Your task to perform on an android device: Search for "duracell triple a" on walmart, select the first entry, and add it to the cart. Image 0: 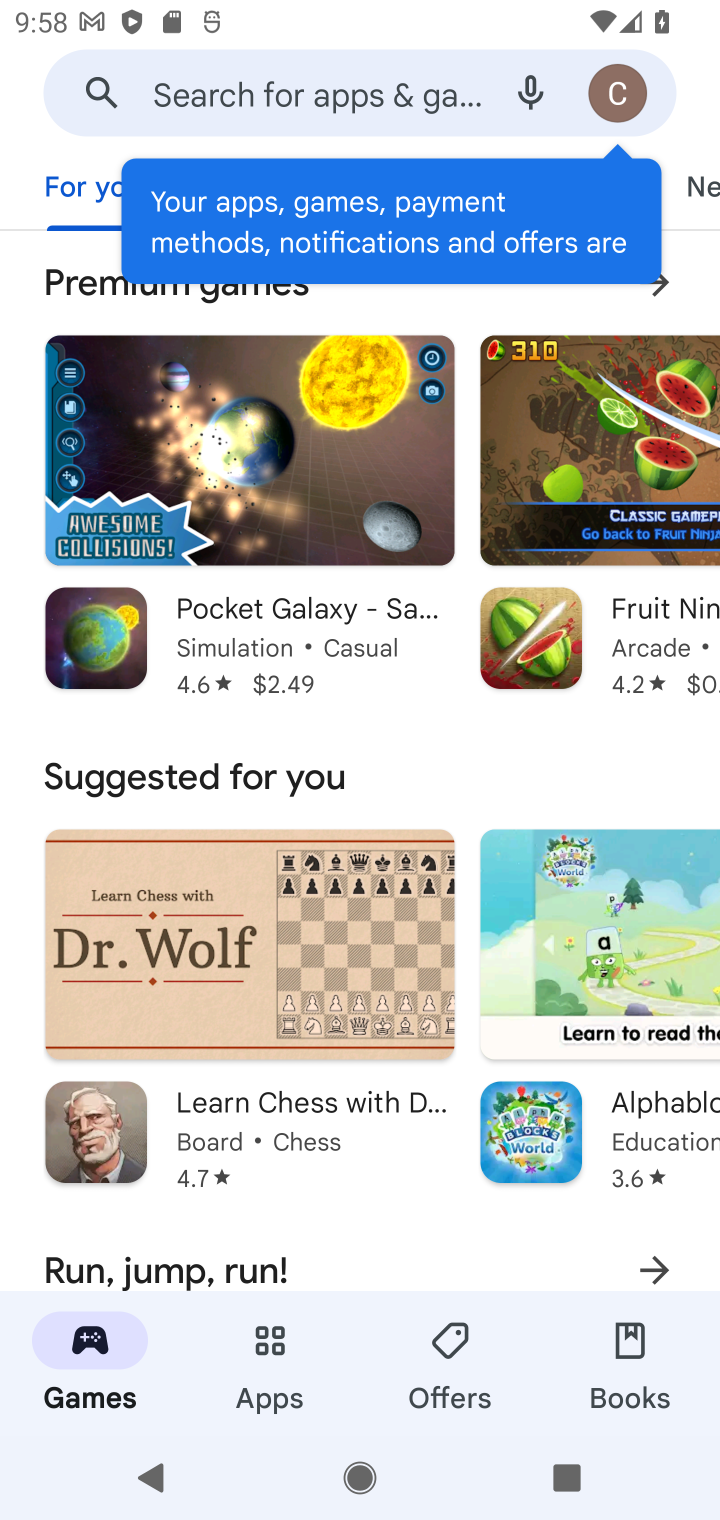
Step 0: press home button
Your task to perform on an android device: Search for "duracell triple a" on walmart, select the first entry, and add it to the cart. Image 1: 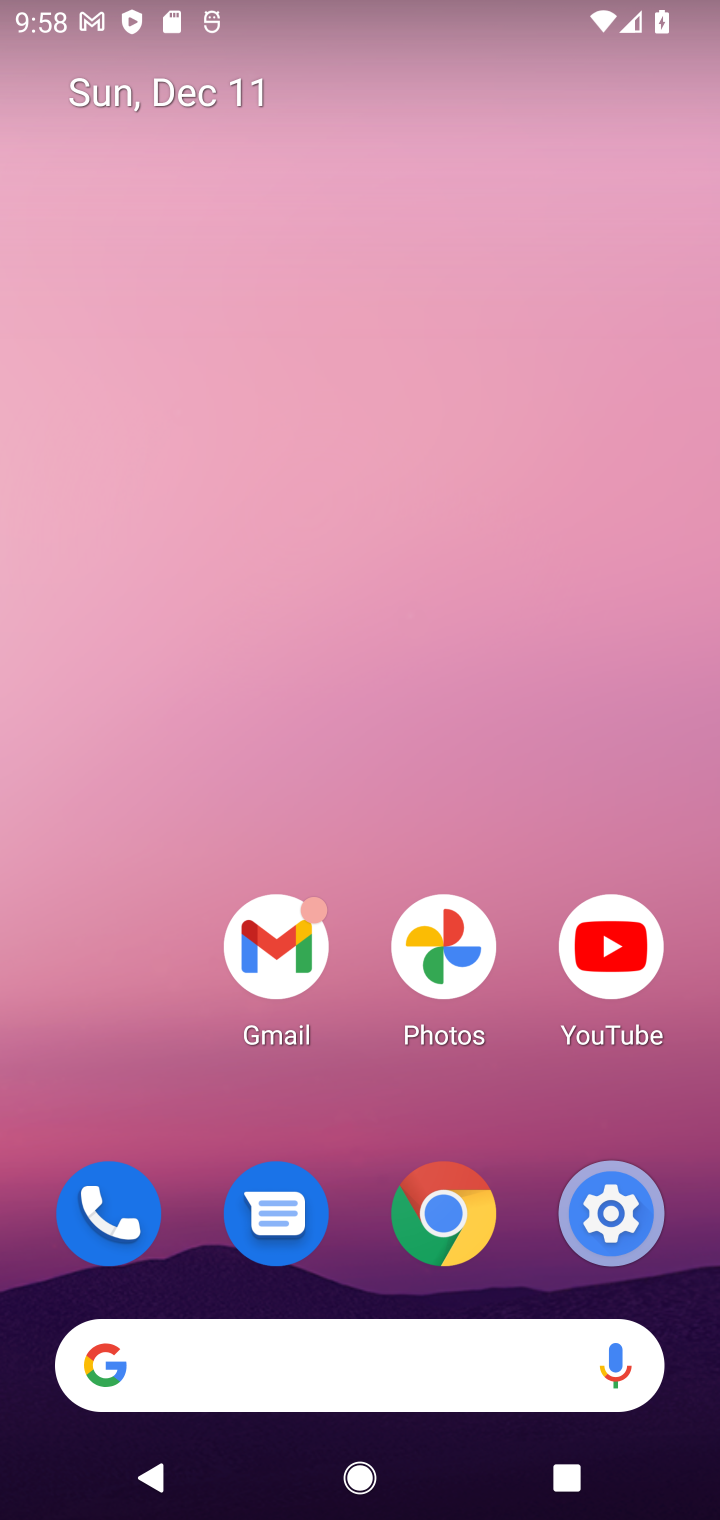
Step 1: click (281, 1388)
Your task to perform on an android device: Search for "duracell triple a" on walmart, select the first entry, and add it to the cart. Image 2: 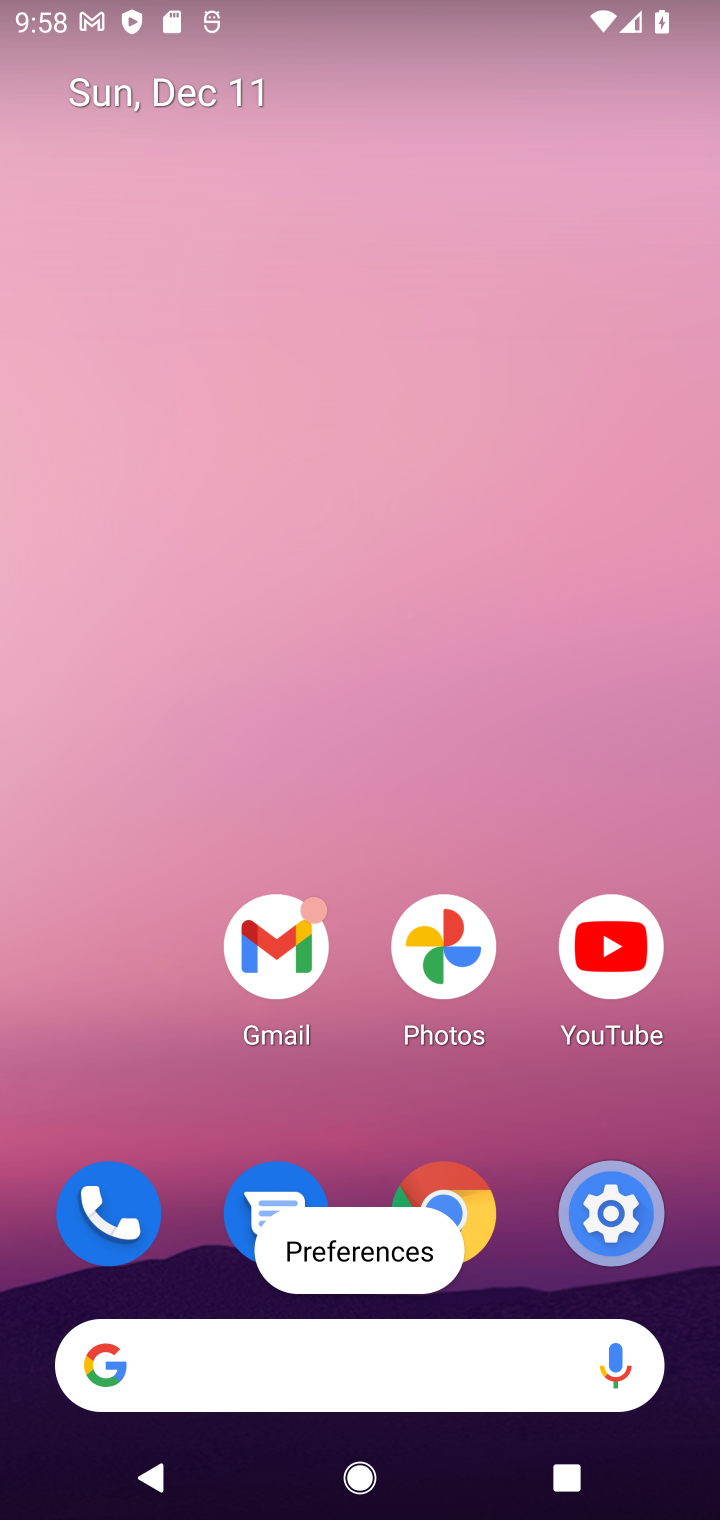
Step 2: type "walmart"
Your task to perform on an android device: Search for "duracell triple a" on walmart, select the first entry, and add it to the cart. Image 3: 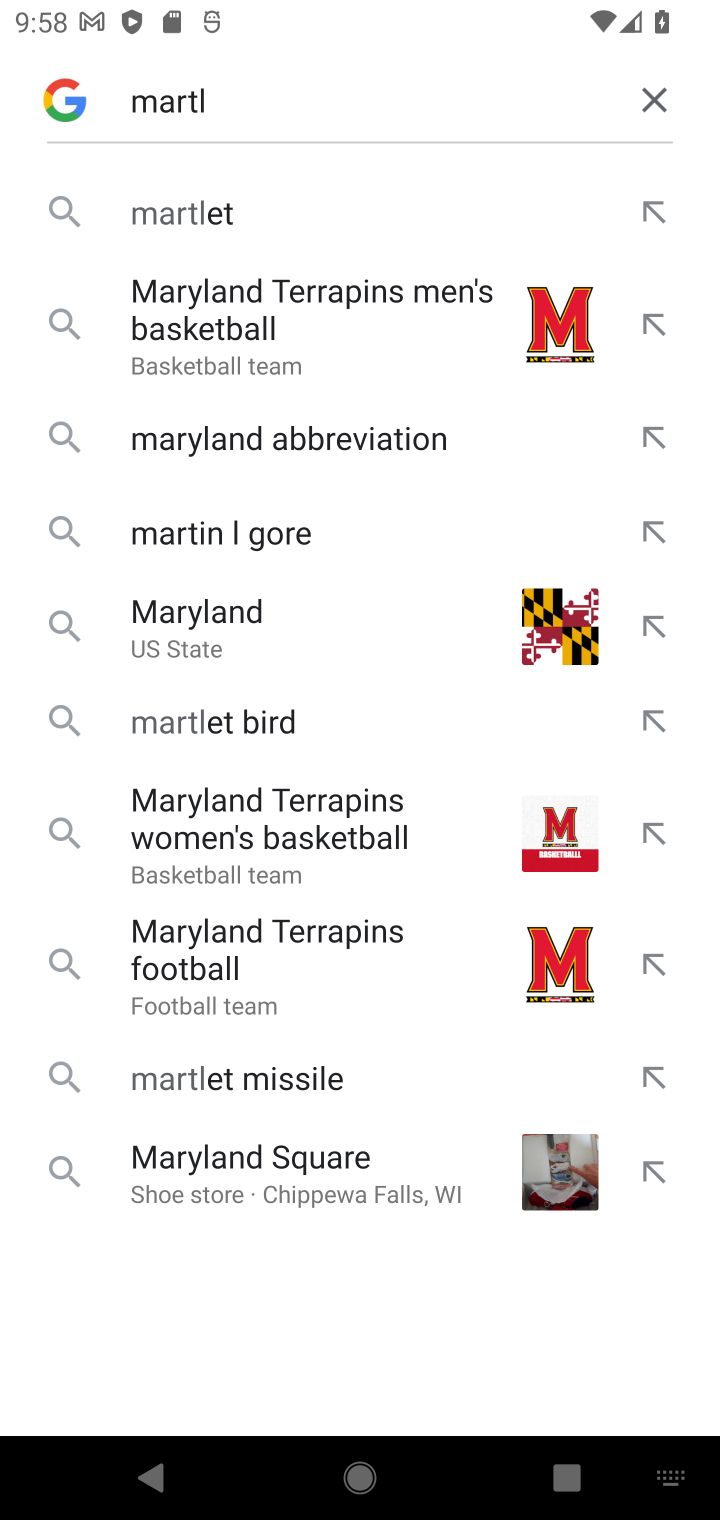
Step 3: click (662, 121)
Your task to perform on an android device: Search for "duracell triple a" on walmart, select the first entry, and add it to the cart. Image 4: 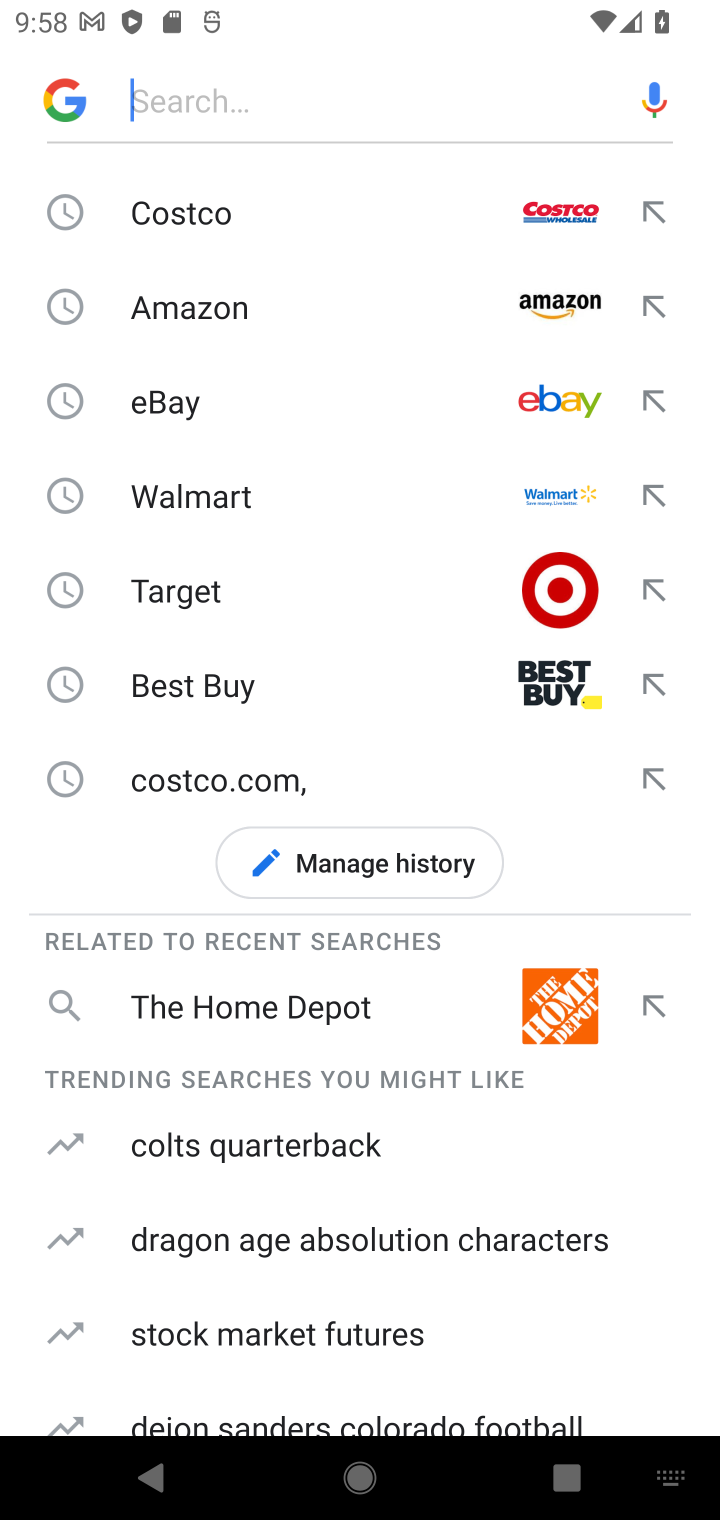
Step 4: click (291, 514)
Your task to perform on an android device: Search for "duracell triple a" on walmart, select the first entry, and add it to the cart. Image 5: 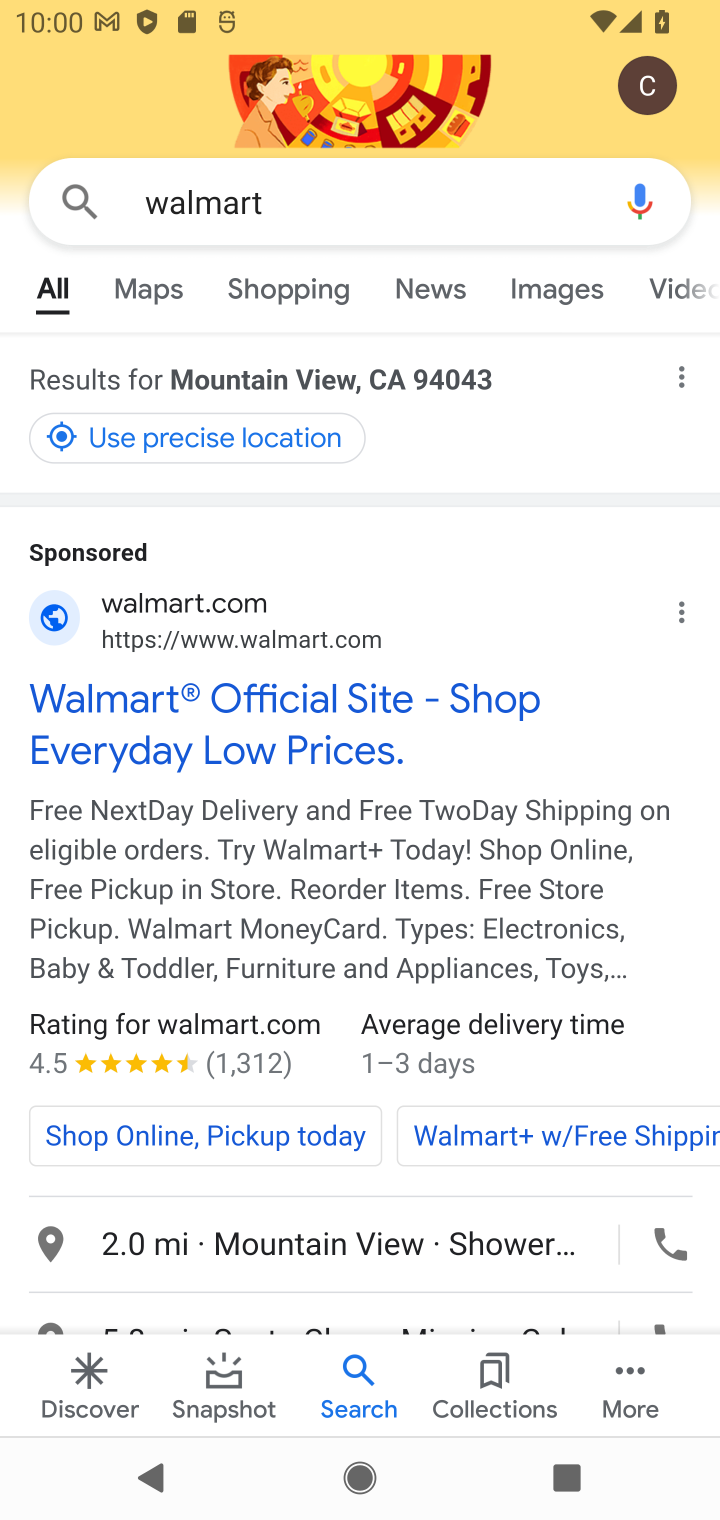
Step 5: click (439, 732)
Your task to perform on an android device: Search for "duracell triple a" on walmart, select the first entry, and add it to the cart. Image 6: 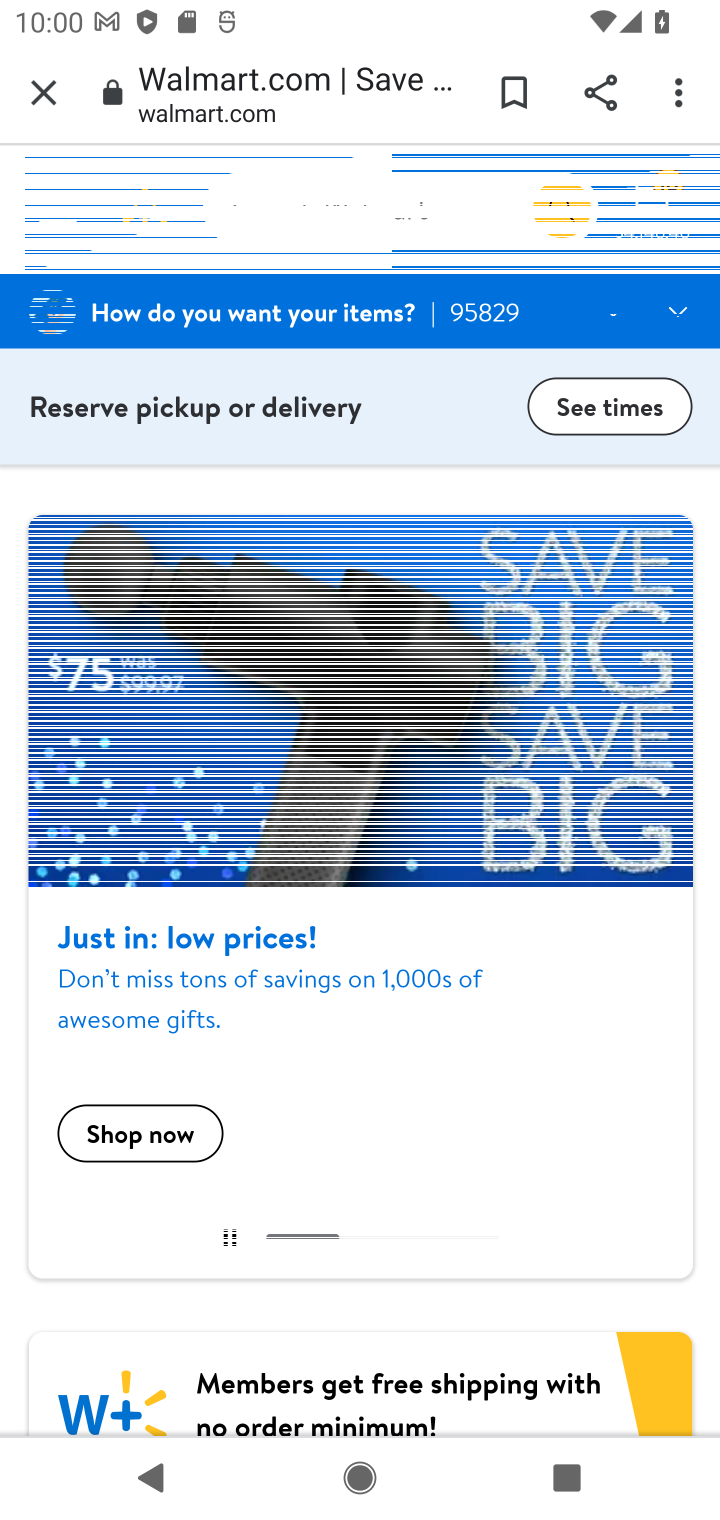
Step 6: drag from (424, 1340) to (393, 529)
Your task to perform on an android device: Search for "duracell triple a" on walmart, select the first entry, and add it to the cart. Image 7: 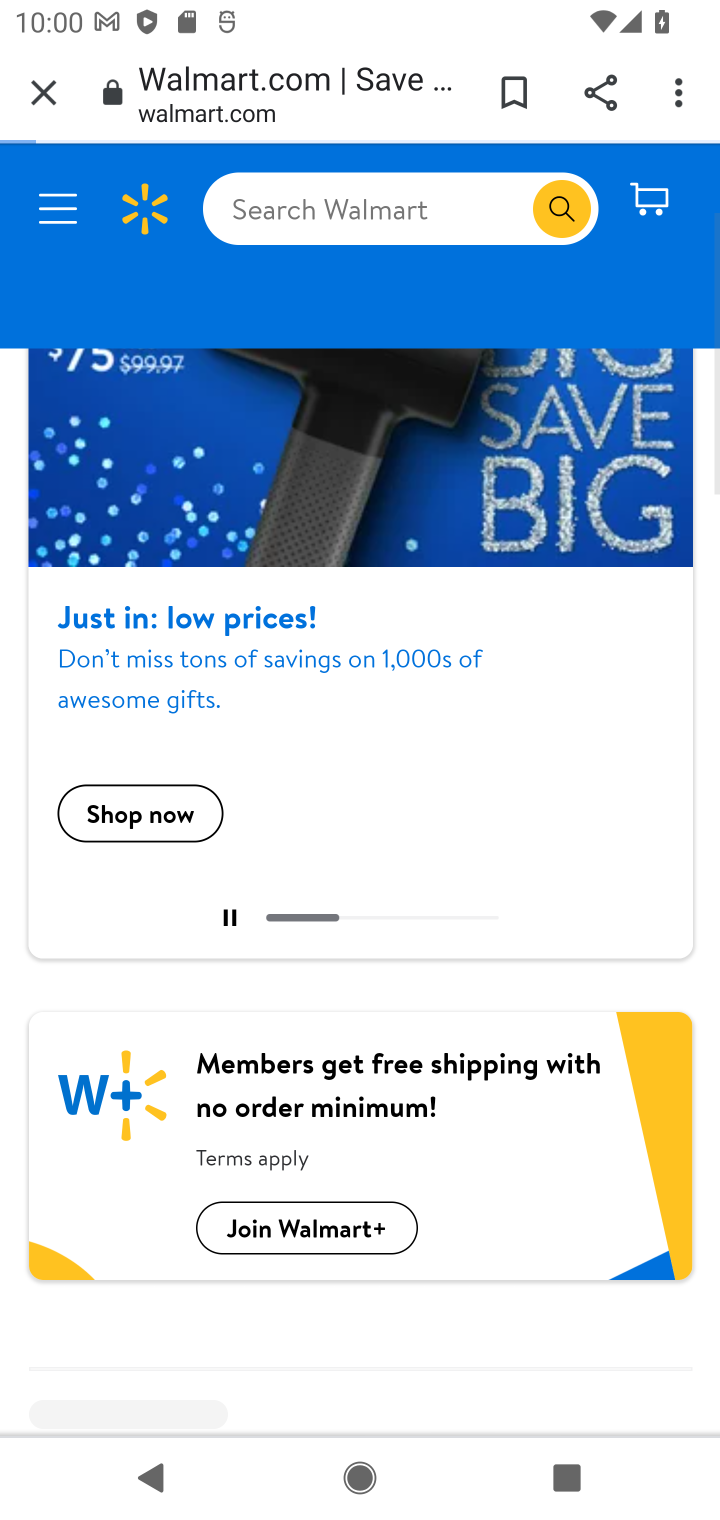
Step 7: click (310, 229)
Your task to perform on an android device: Search for "duracell triple a" on walmart, select the first entry, and add it to the cart. Image 8: 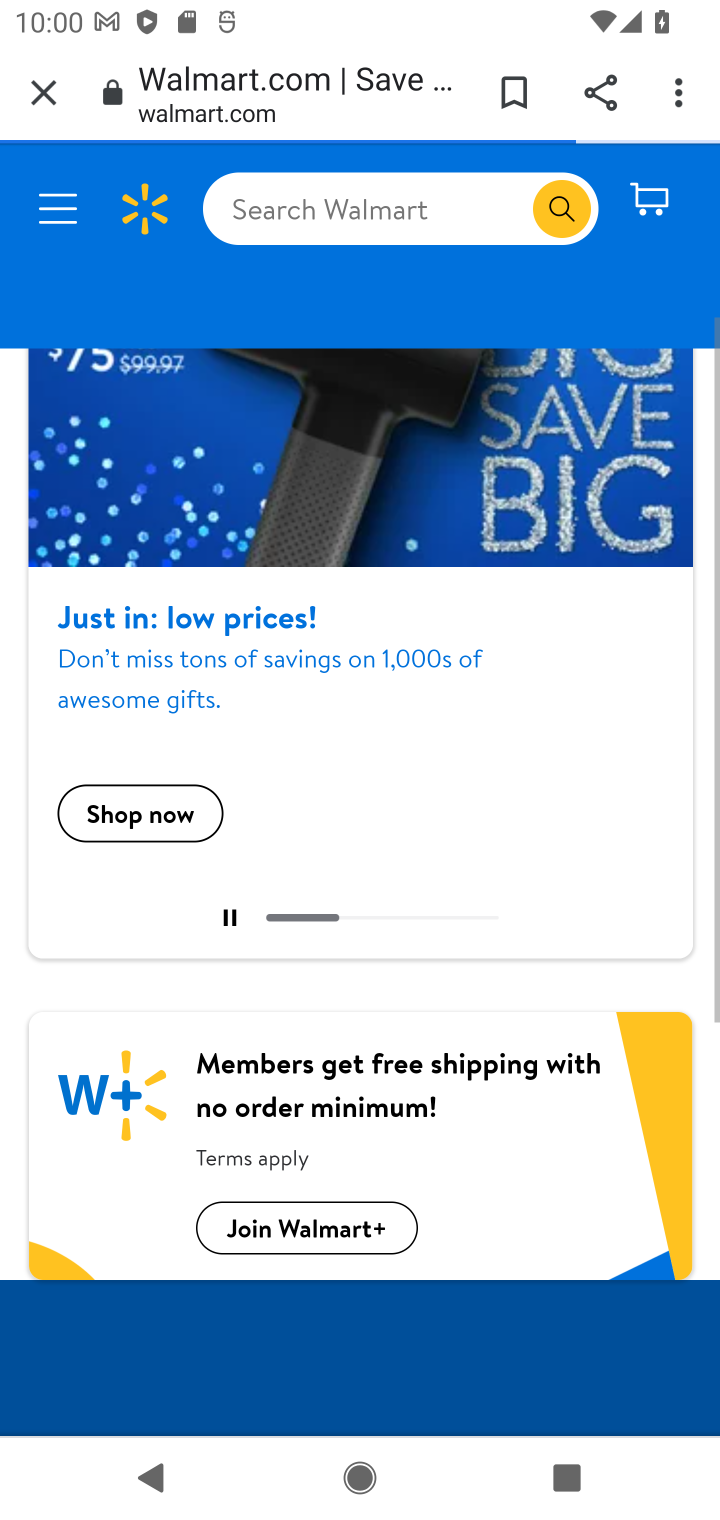
Step 8: click (392, 239)
Your task to perform on an android device: Search for "duracell triple a" on walmart, select the first entry, and add it to the cart. Image 9: 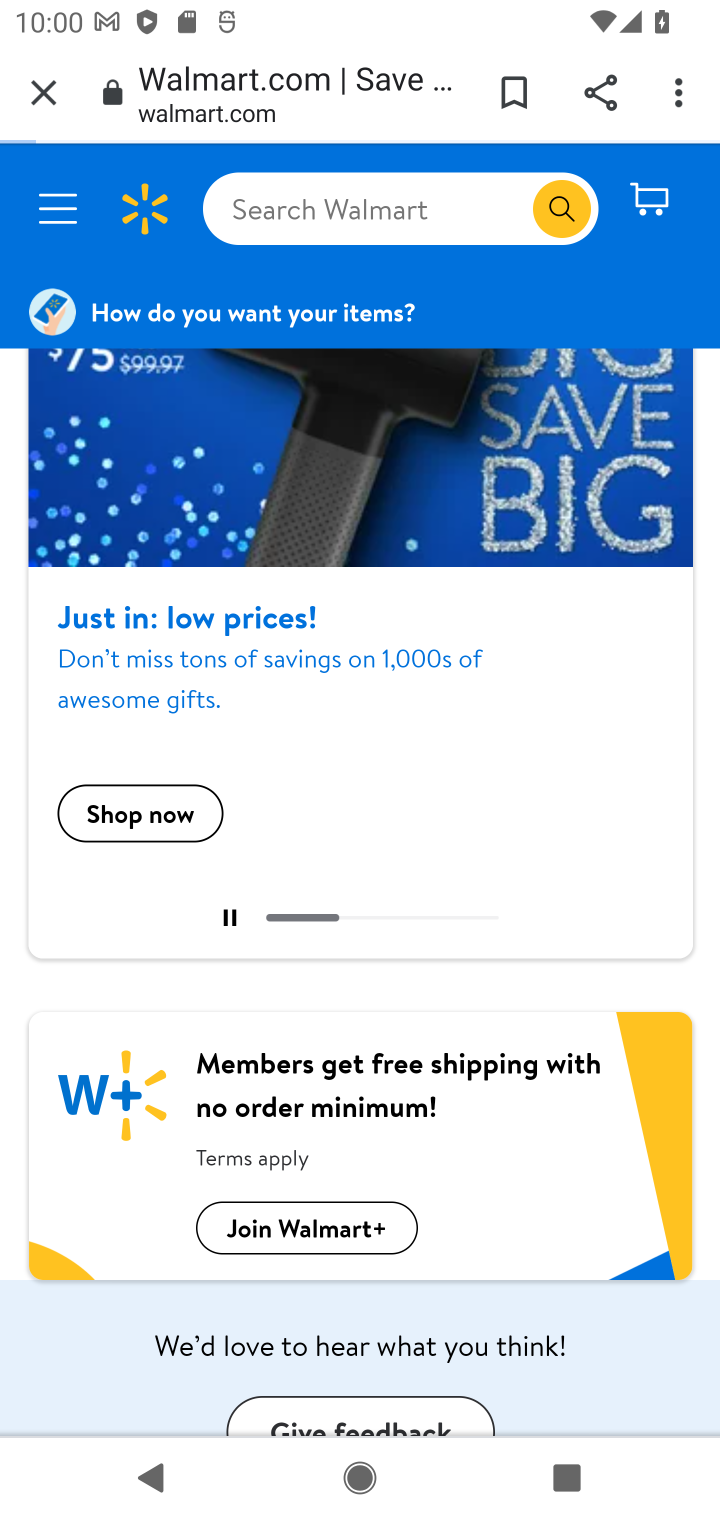
Step 9: type "duracell"
Your task to perform on an android device: Search for "duracell triple a" on walmart, select the first entry, and add it to the cart. Image 10: 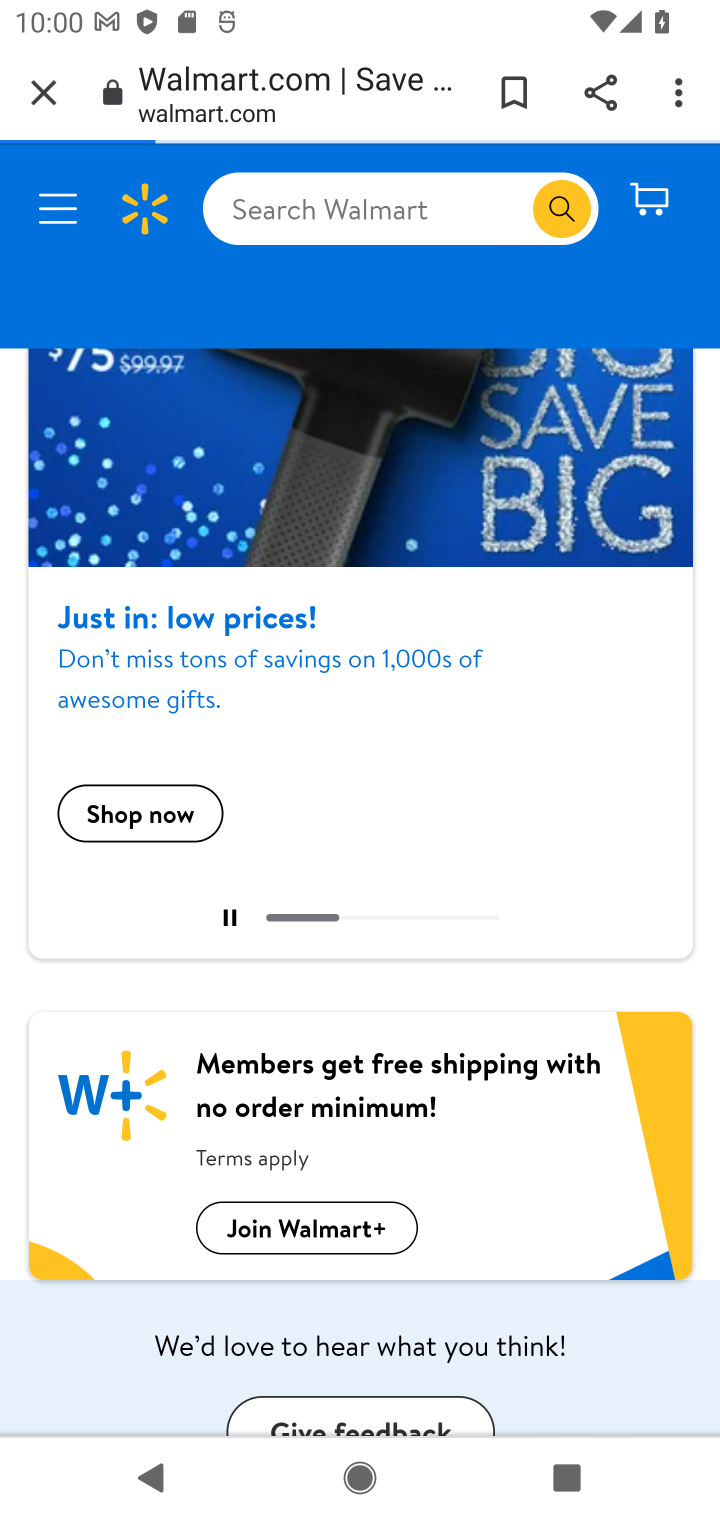
Step 10: click (374, 234)
Your task to perform on an android device: Search for "duracell triple a" on walmart, select the first entry, and add it to the cart. Image 11: 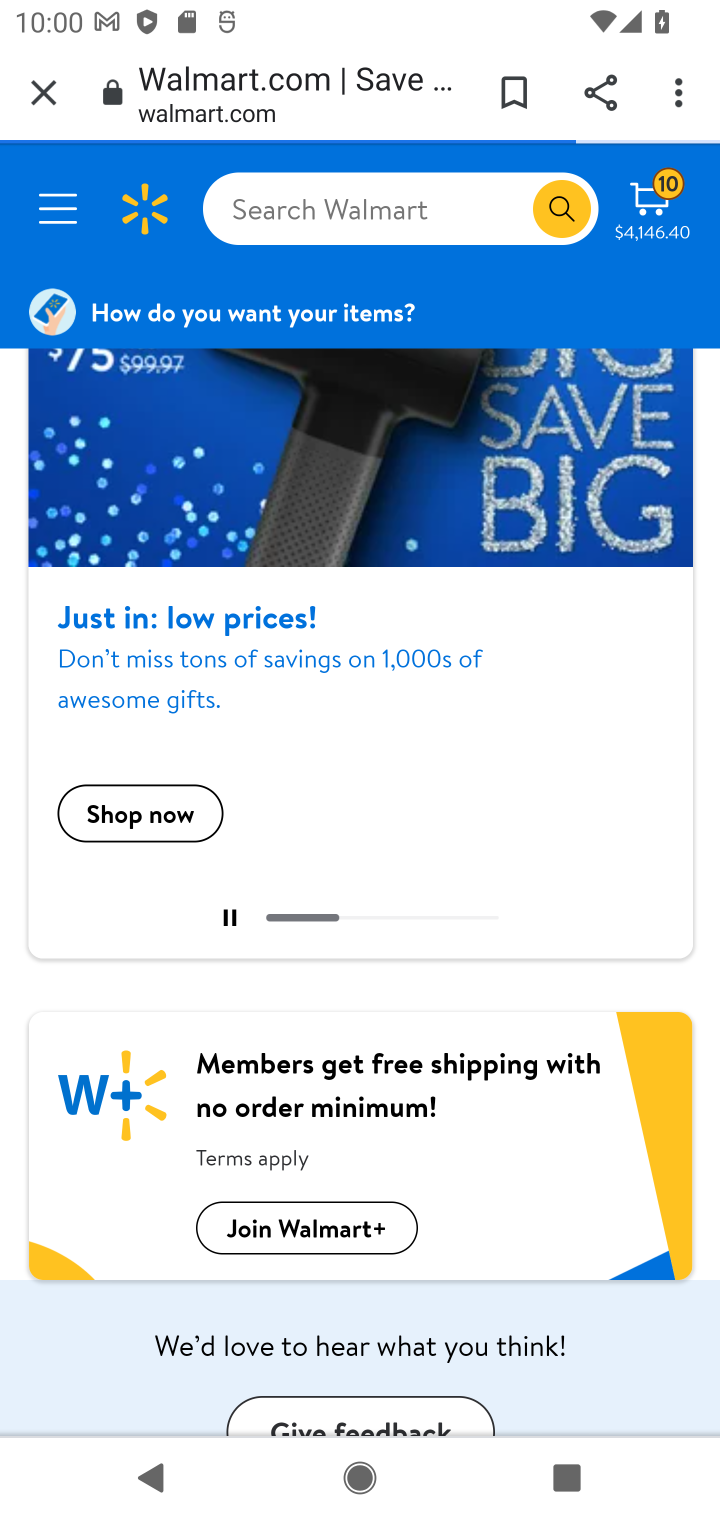
Step 11: type "duracell triple a"
Your task to perform on an android device: Search for "duracell triple a" on walmart, select the first entry, and add it to the cart. Image 12: 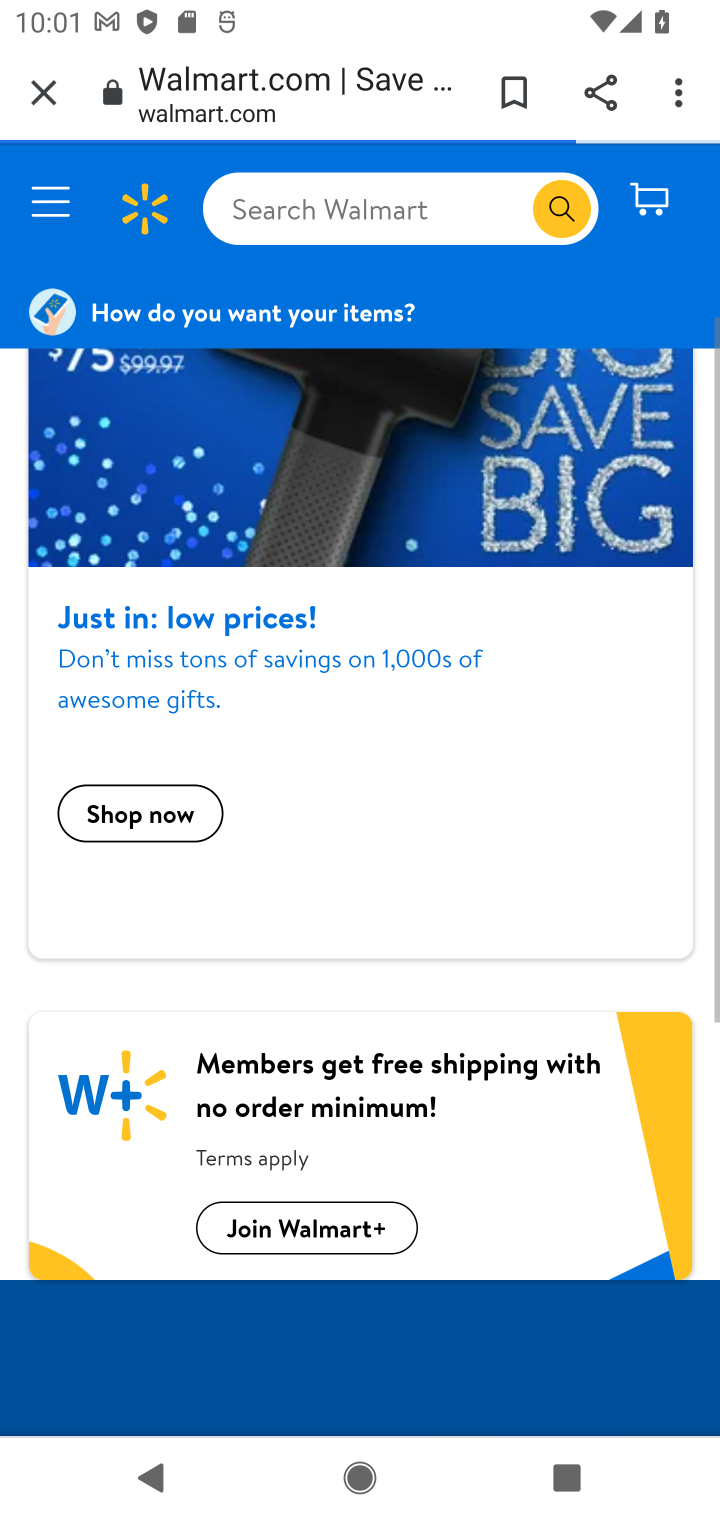
Step 12: click (415, 233)
Your task to perform on an android device: Search for "duracell triple a" on walmart, select the first entry, and add it to the cart. Image 13: 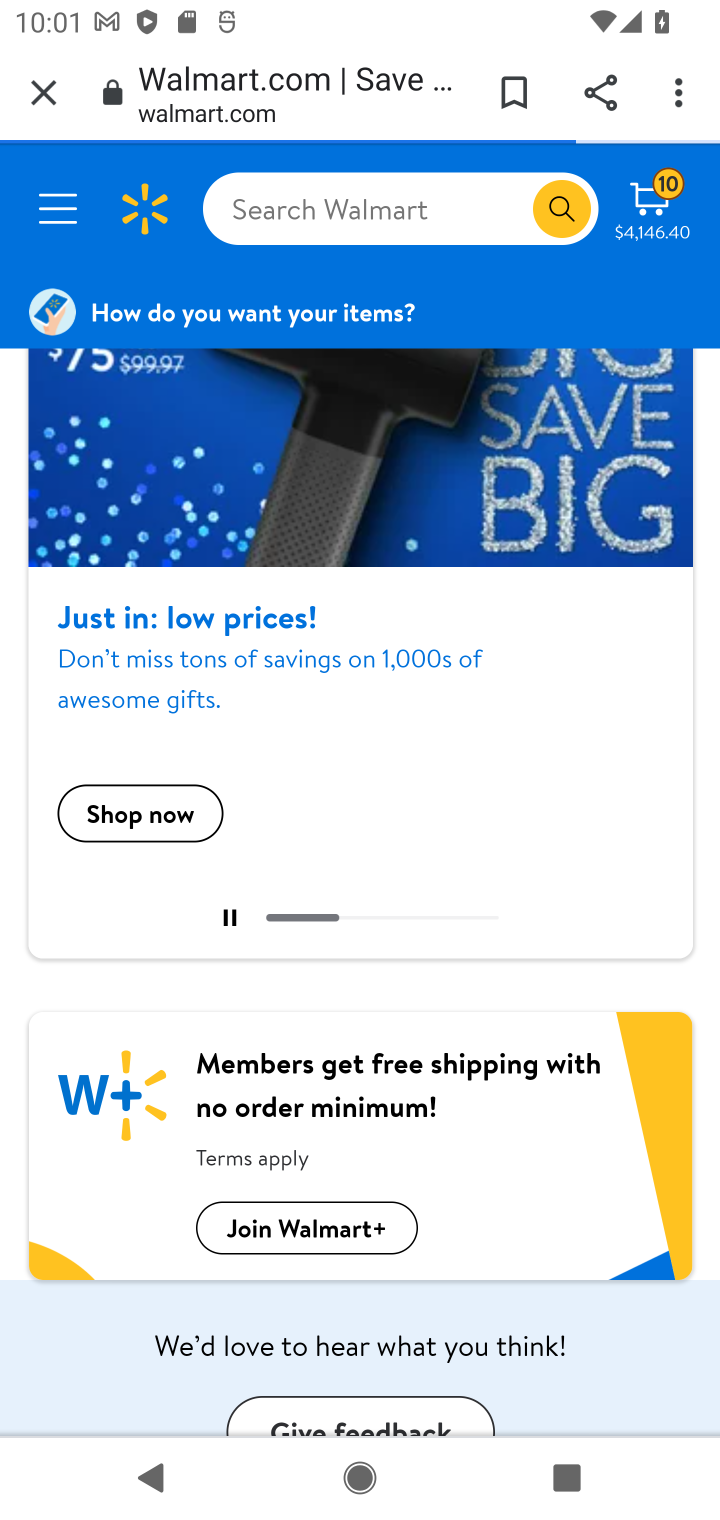
Step 13: click (386, 178)
Your task to perform on an android device: Search for "duracell triple a" on walmart, select the first entry, and add it to the cart. Image 14: 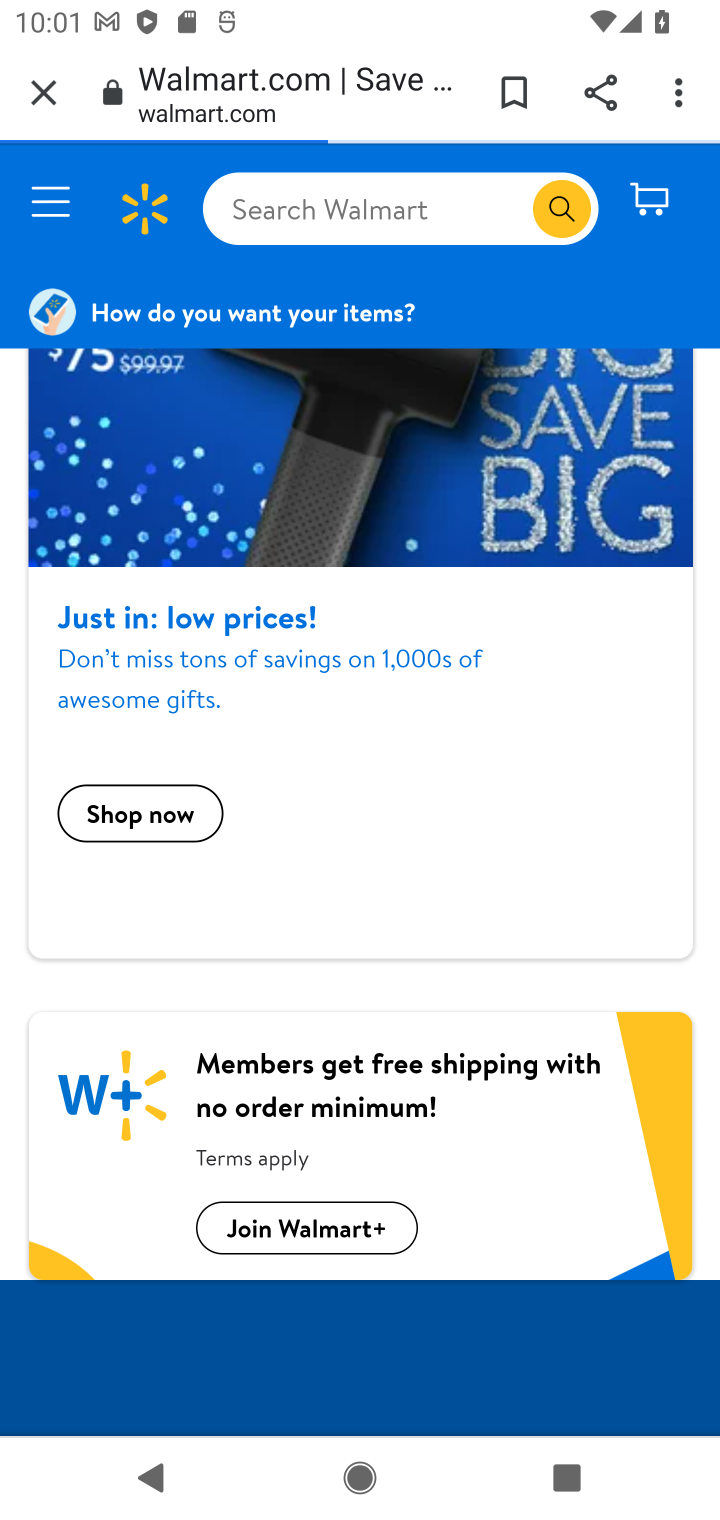
Step 14: click (345, 200)
Your task to perform on an android device: Search for "duracell triple a" on walmart, select the first entry, and add it to the cart. Image 15: 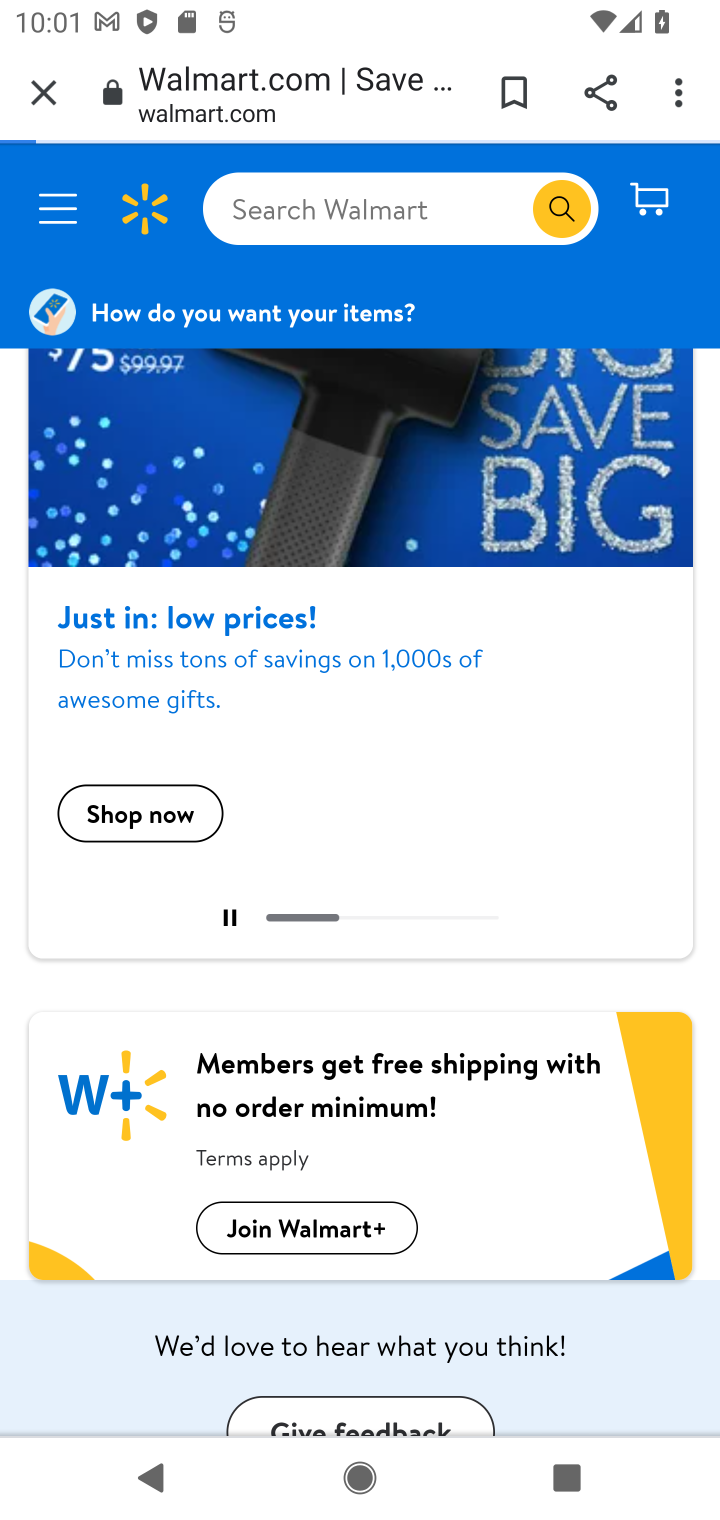
Step 15: task complete